Your task to perform on an android device: Open Google Chrome Image 0: 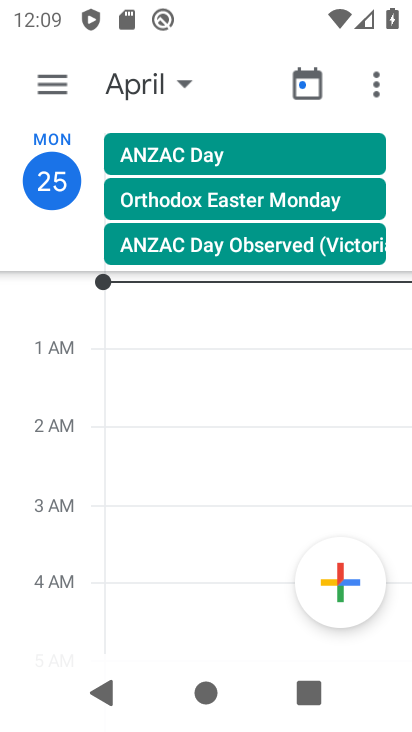
Step 0: press home button
Your task to perform on an android device: Open Google Chrome Image 1: 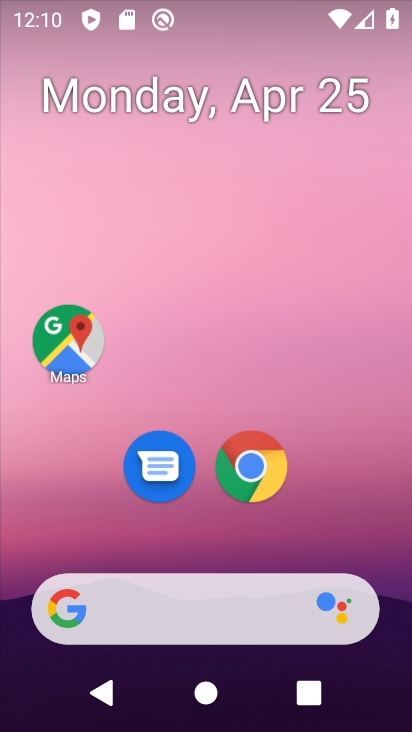
Step 1: click (252, 485)
Your task to perform on an android device: Open Google Chrome Image 2: 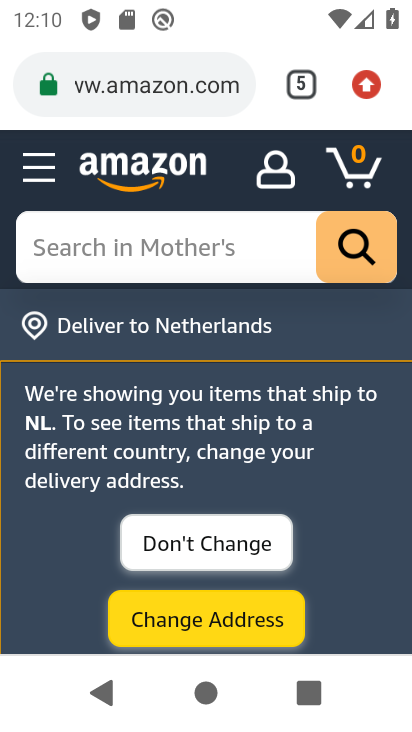
Step 2: task complete